Your task to perform on an android device: toggle notification dots Image 0: 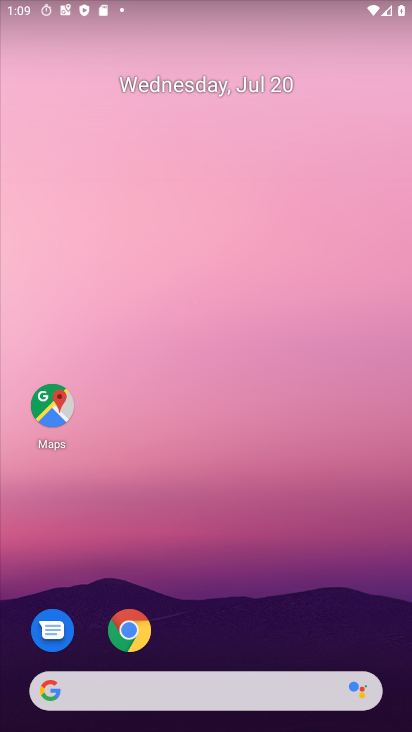
Step 0: drag from (317, 620) to (314, 304)
Your task to perform on an android device: toggle notification dots Image 1: 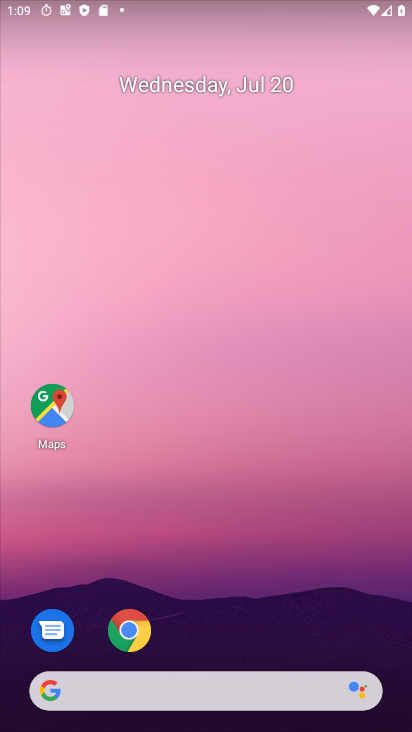
Step 1: drag from (348, 615) to (331, 154)
Your task to perform on an android device: toggle notification dots Image 2: 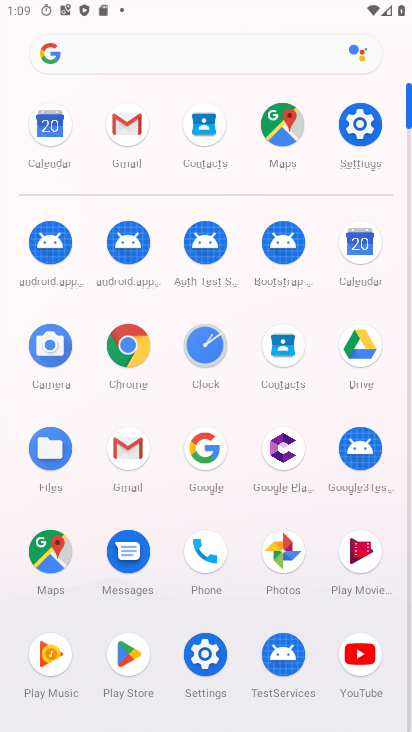
Step 2: click (363, 109)
Your task to perform on an android device: toggle notification dots Image 3: 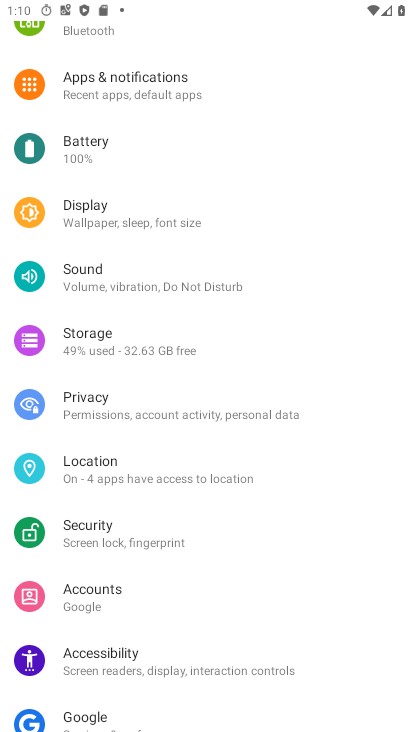
Step 3: click (110, 92)
Your task to perform on an android device: toggle notification dots Image 4: 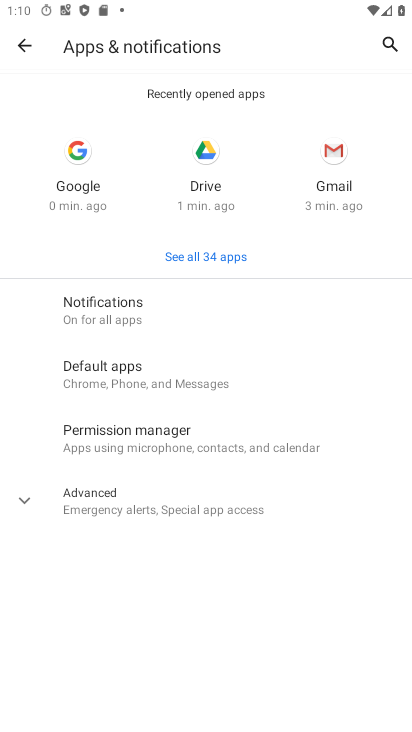
Step 4: click (103, 321)
Your task to perform on an android device: toggle notification dots Image 5: 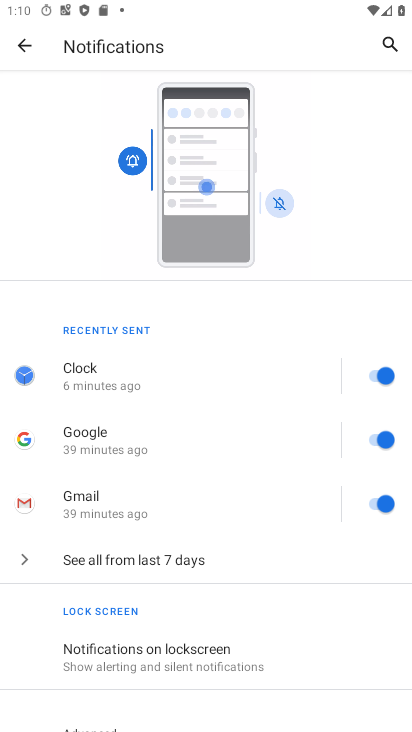
Step 5: drag from (156, 640) to (87, 264)
Your task to perform on an android device: toggle notification dots Image 6: 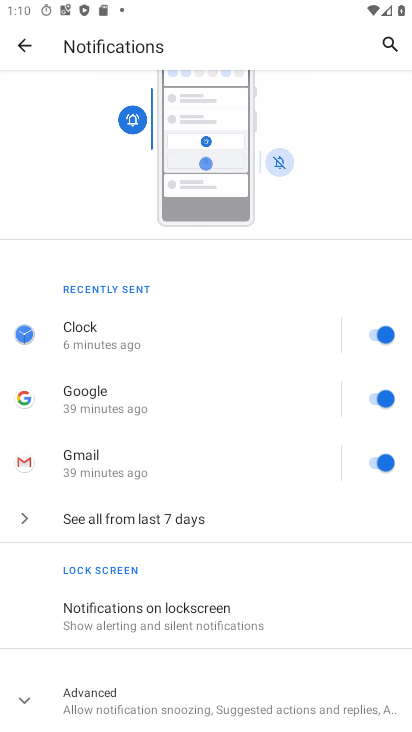
Step 6: click (128, 706)
Your task to perform on an android device: toggle notification dots Image 7: 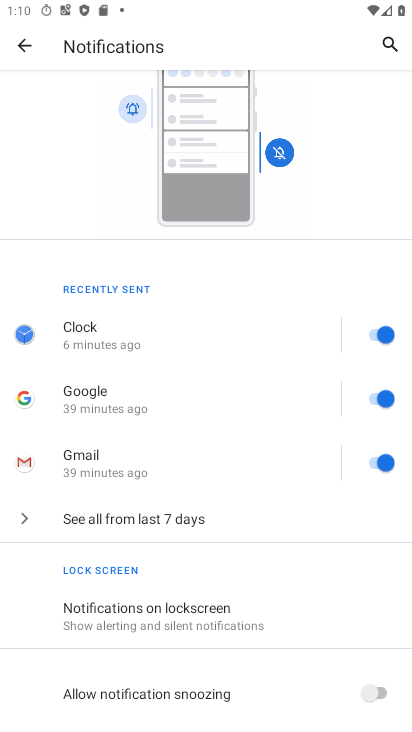
Step 7: drag from (147, 682) to (109, 152)
Your task to perform on an android device: toggle notification dots Image 8: 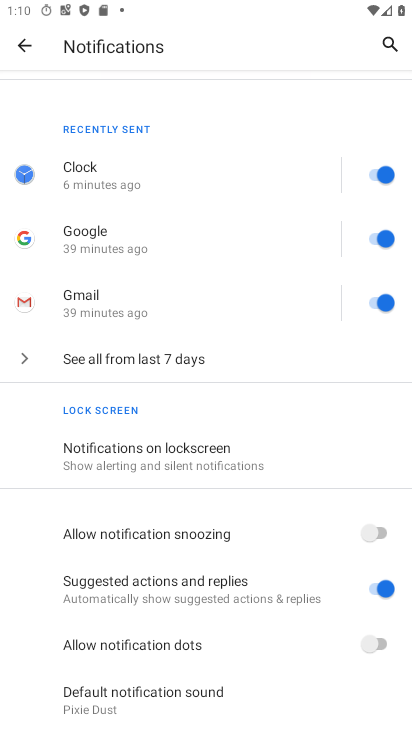
Step 8: click (389, 631)
Your task to perform on an android device: toggle notification dots Image 9: 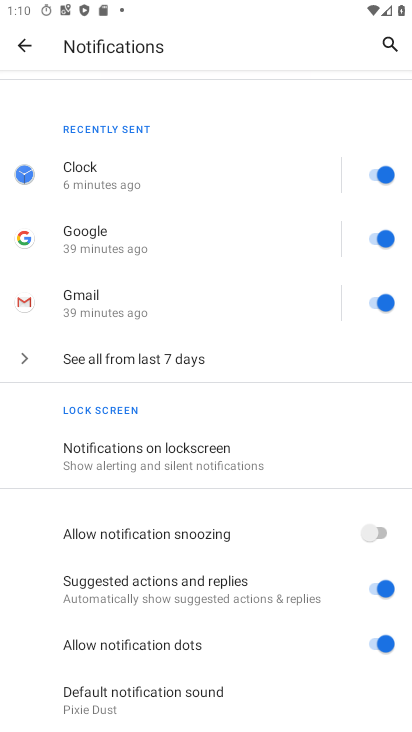
Step 9: task complete